Your task to perform on an android device: toggle notification dots Image 0: 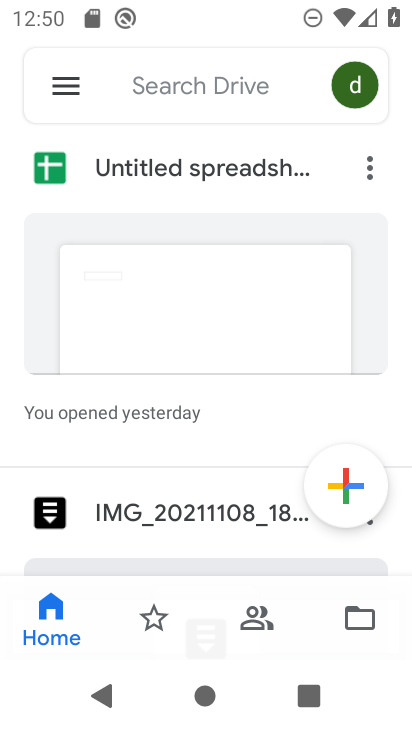
Step 0: press home button
Your task to perform on an android device: toggle notification dots Image 1: 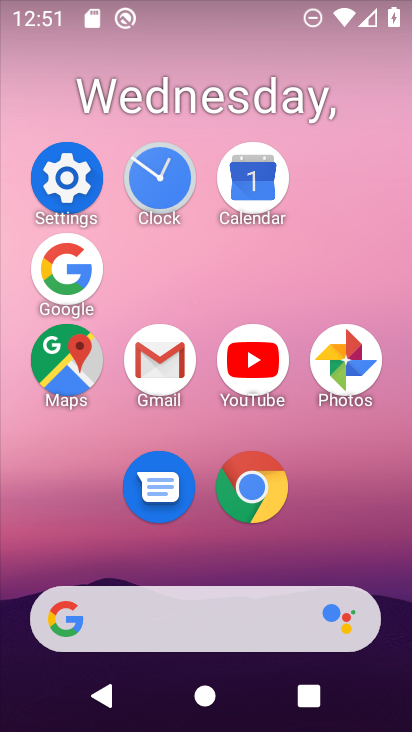
Step 1: click (94, 165)
Your task to perform on an android device: toggle notification dots Image 2: 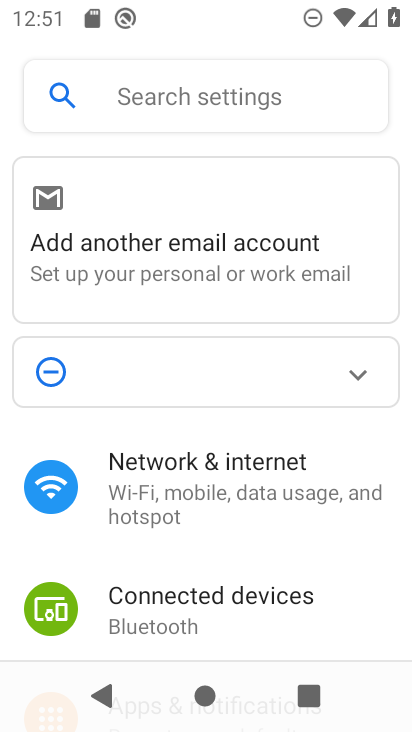
Step 2: drag from (298, 476) to (359, 161)
Your task to perform on an android device: toggle notification dots Image 3: 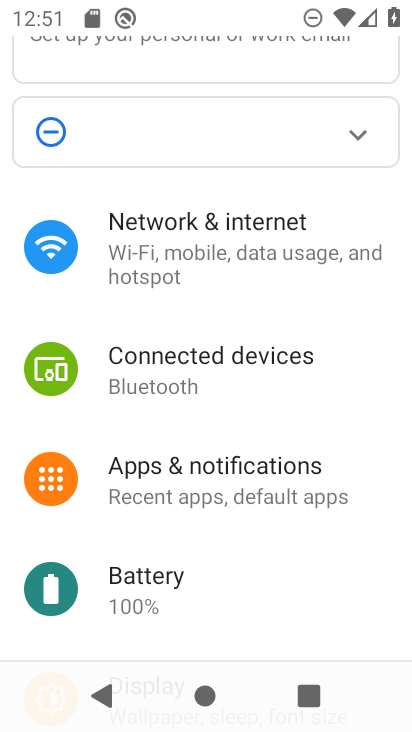
Step 3: click (252, 497)
Your task to perform on an android device: toggle notification dots Image 4: 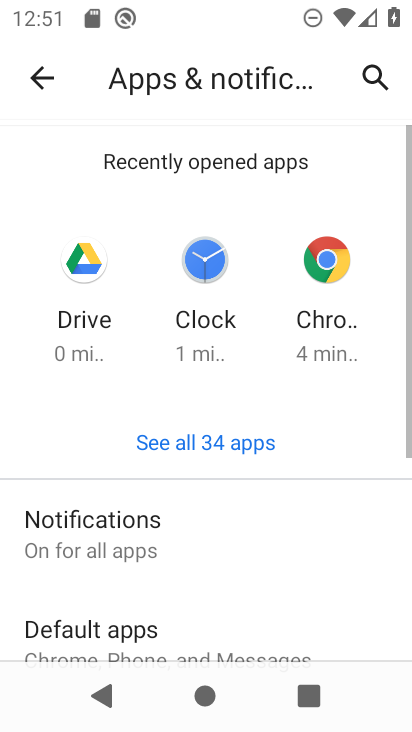
Step 4: drag from (195, 603) to (280, 204)
Your task to perform on an android device: toggle notification dots Image 5: 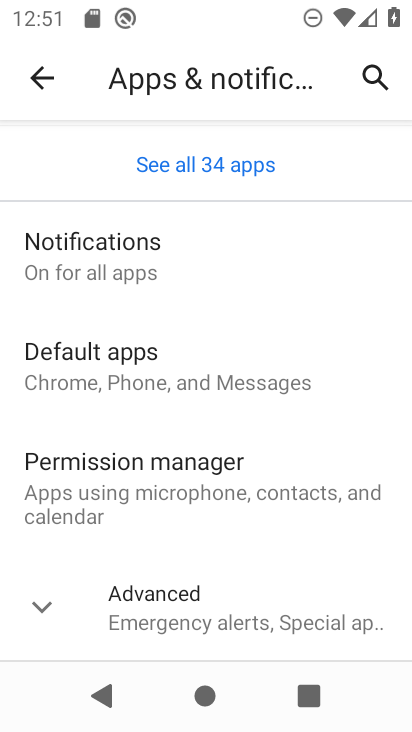
Step 5: click (212, 245)
Your task to perform on an android device: toggle notification dots Image 6: 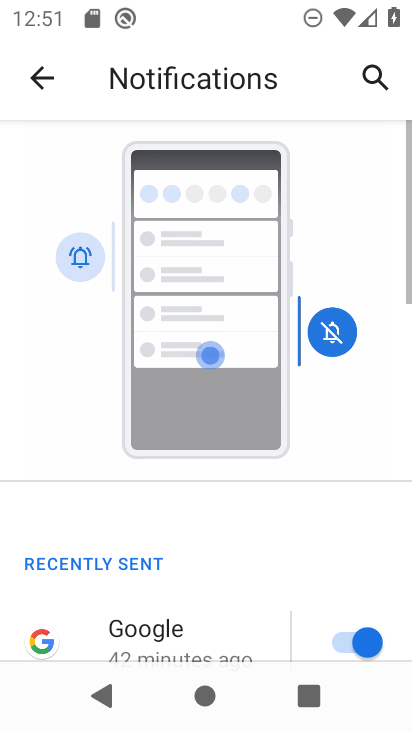
Step 6: drag from (195, 607) to (267, 164)
Your task to perform on an android device: toggle notification dots Image 7: 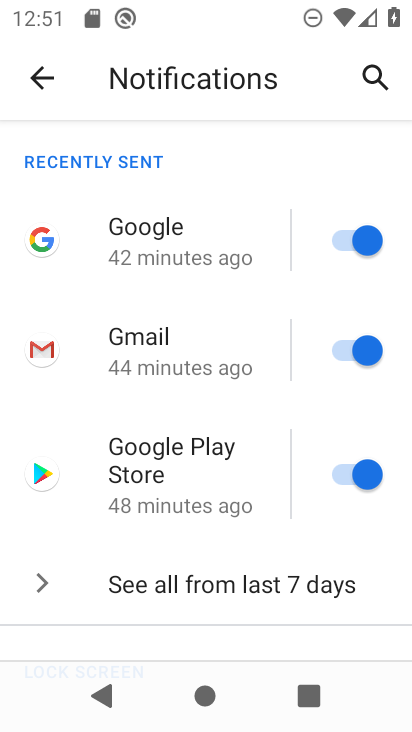
Step 7: drag from (237, 515) to (294, 90)
Your task to perform on an android device: toggle notification dots Image 8: 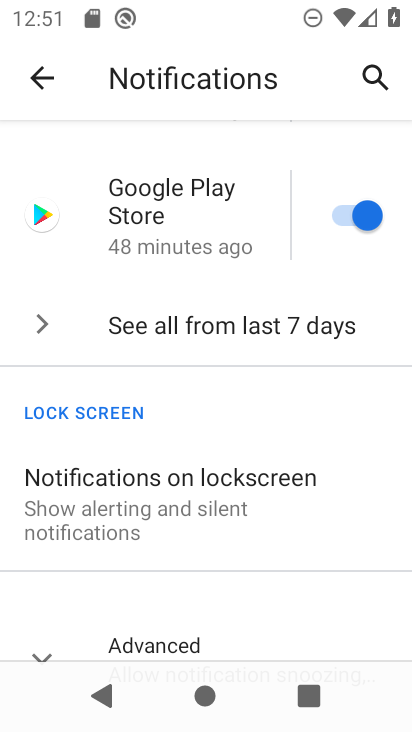
Step 8: drag from (246, 605) to (304, 190)
Your task to perform on an android device: toggle notification dots Image 9: 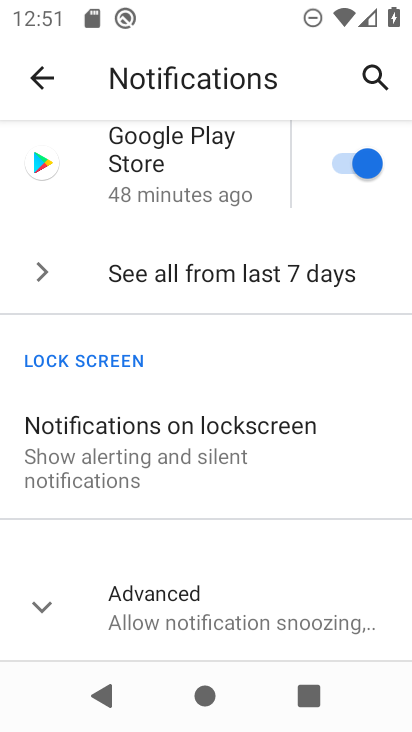
Step 9: click (164, 639)
Your task to perform on an android device: toggle notification dots Image 10: 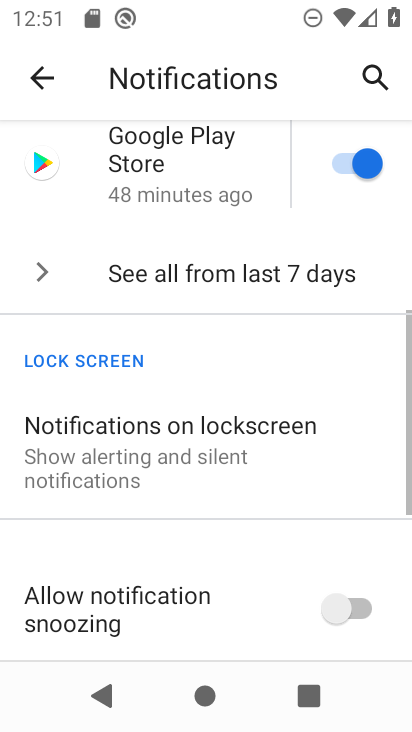
Step 10: drag from (164, 637) to (282, 118)
Your task to perform on an android device: toggle notification dots Image 11: 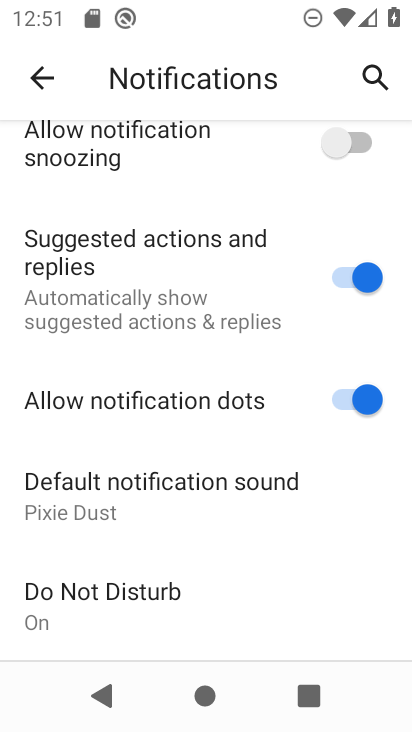
Step 11: click (375, 402)
Your task to perform on an android device: toggle notification dots Image 12: 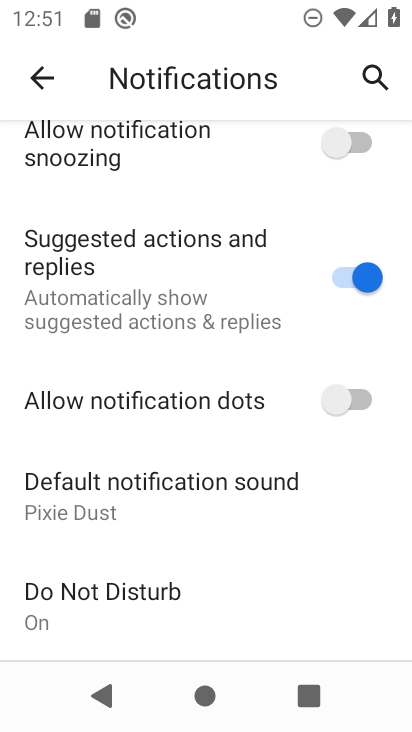
Step 12: task complete